Your task to perform on an android device: What's on my calendar today? Image 0: 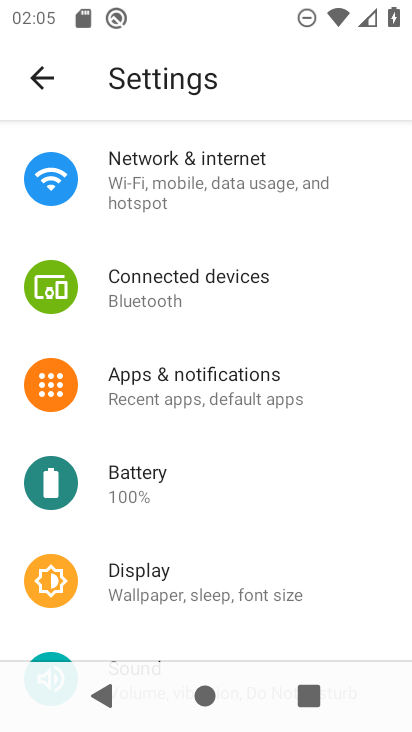
Step 0: press home button
Your task to perform on an android device: What's on my calendar today? Image 1: 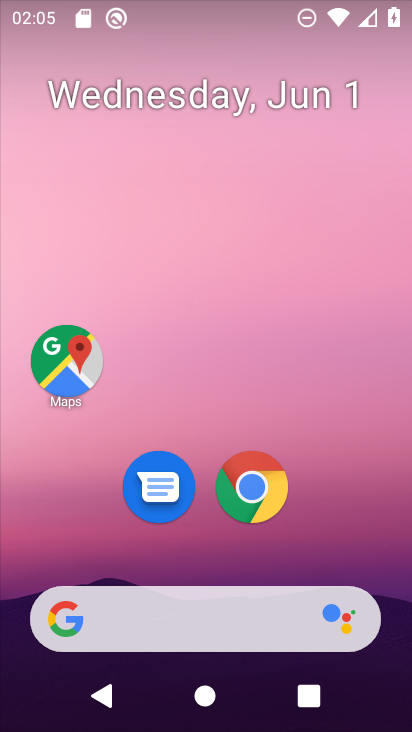
Step 1: drag from (329, 489) to (311, 219)
Your task to perform on an android device: What's on my calendar today? Image 2: 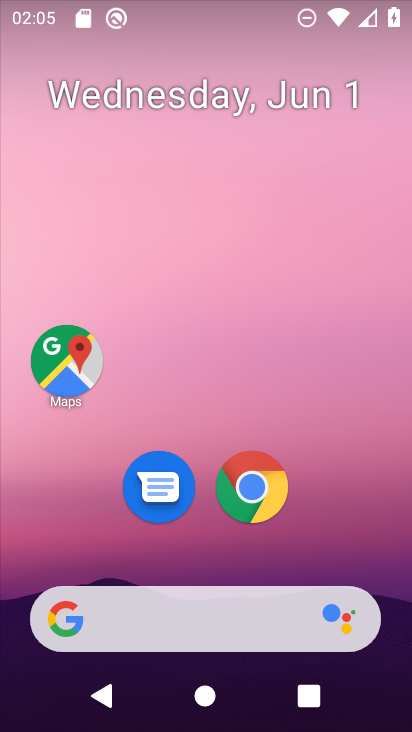
Step 2: drag from (264, 528) to (311, 197)
Your task to perform on an android device: What's on my calendar today? Image 3: 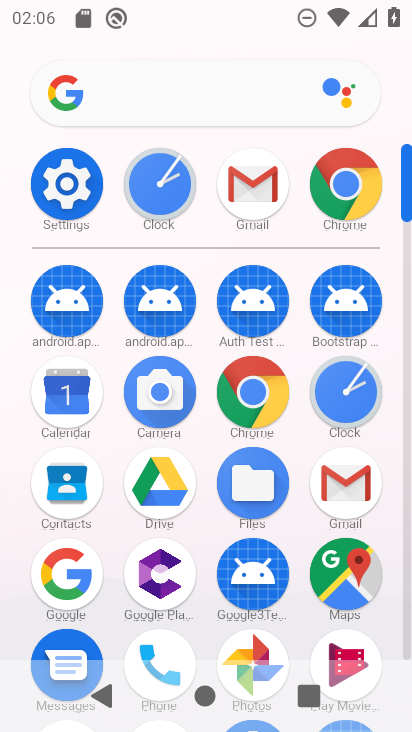
Step 3: click (59, 380)
Your task to perform on an android device: What's on my calendar today? Image 4: 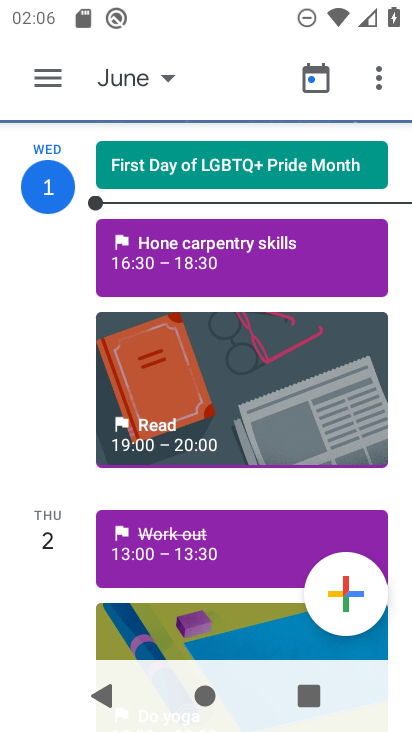
Step 4: task complete